Your task to perform on an android device: check storage Image 0: 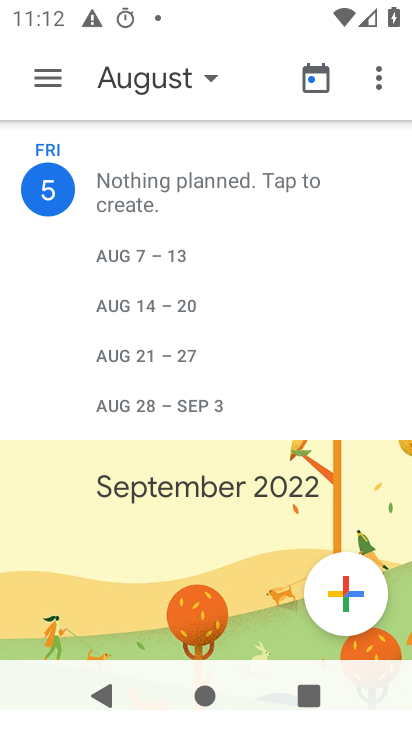
Step 0: press back button
Your task to perform on an android device: check storage Image 1: 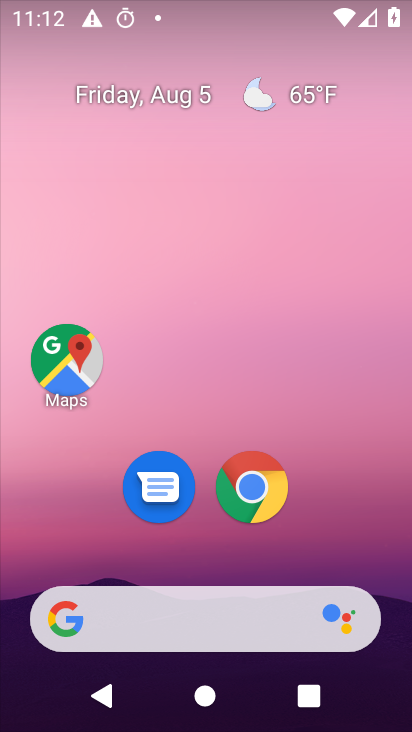
Step 1: drag from (225, 606) to (255, 52)
Your task to perform on an android device: check storage Image 2: 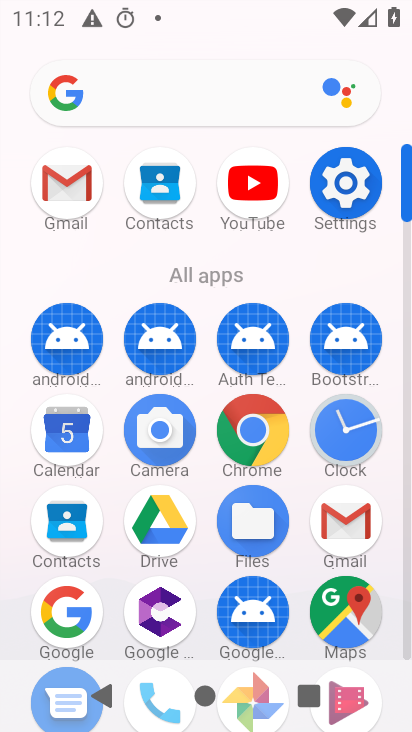
Step 2: click (356, 193)
Your task to perform on an android device: check storage Image 3: 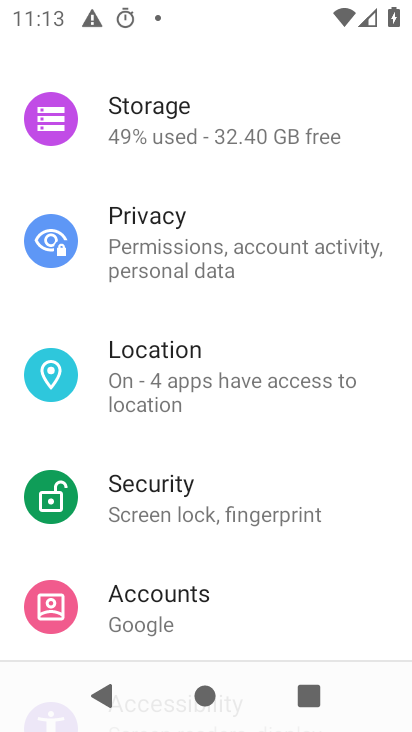
Step 3: click (158, 127)
Your task to perform on an android device: check storage Image 4: 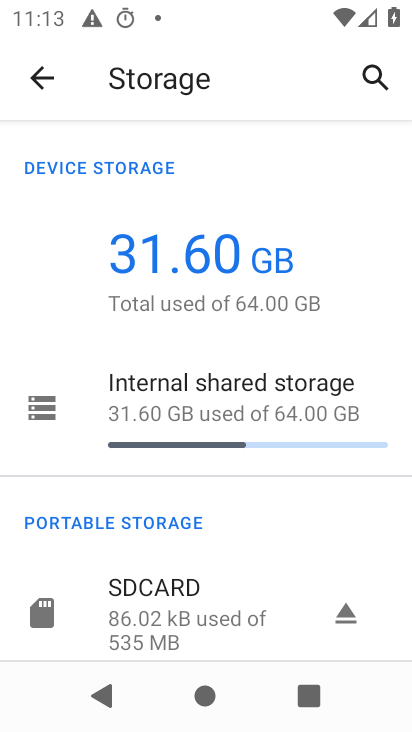
Step 4: task complete